Your task to perform on an android device: Open privacy settings Image 0: 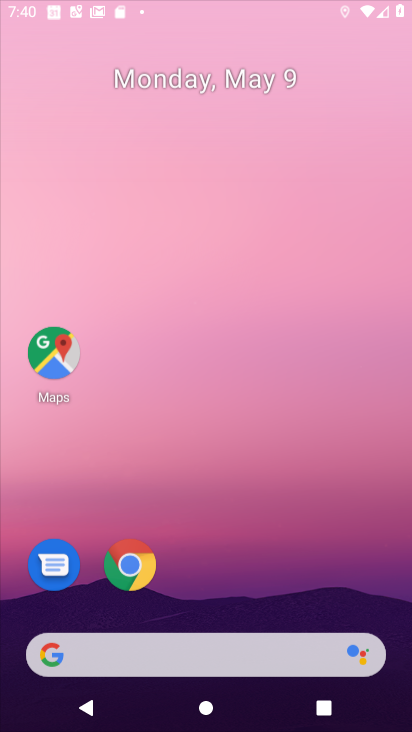
Step 0: click (226, 247)
Your task to perform on an android device: Open privacy settings Image 1: 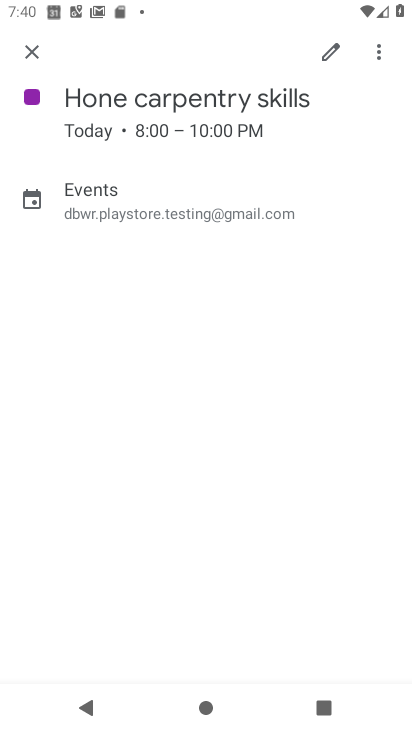
Step 1: press home button
Your task to perform on an android device: Open privacy settings Image 2: 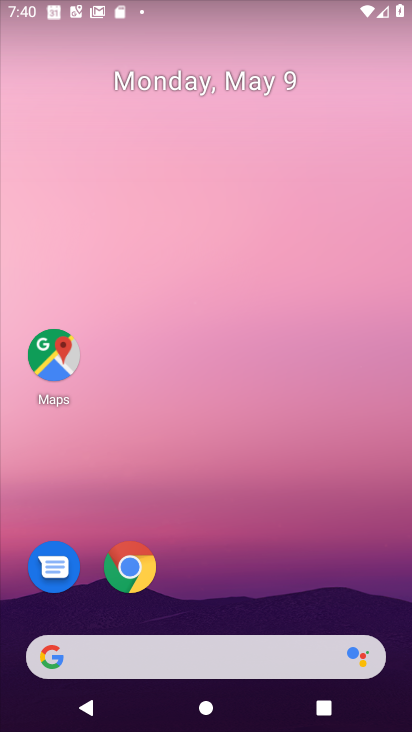
Step 2: drag from (198, 615) to (197, 298)
Your task to perform on an android device: Open privacy settings Image 3: 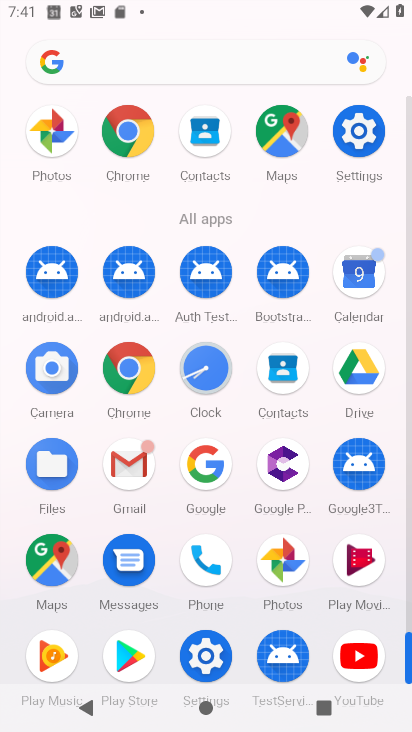
Step 3: click (200, 643)
Your task to perform on an android device: Open privacy settings Image 4: 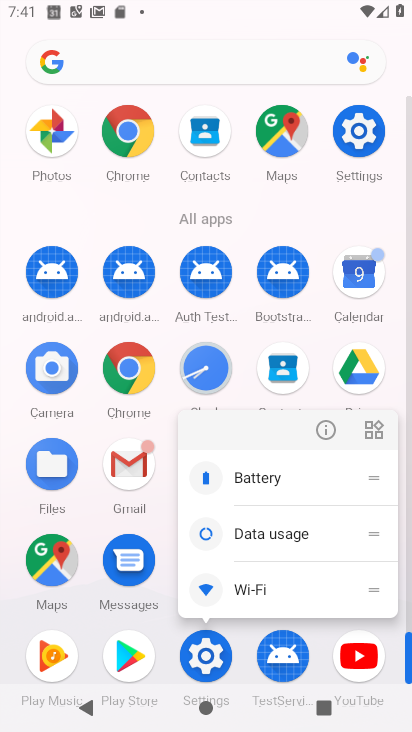
Step 4: click (323, 430)
Your task to perform on an android device: Open privacy settings Image 5: 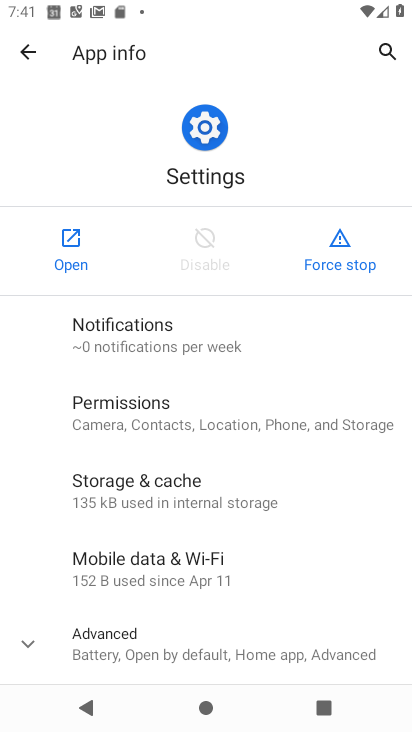
Step 5: click (1, 205)
Your task to perform on an android device: Open privacy settings Image 6: 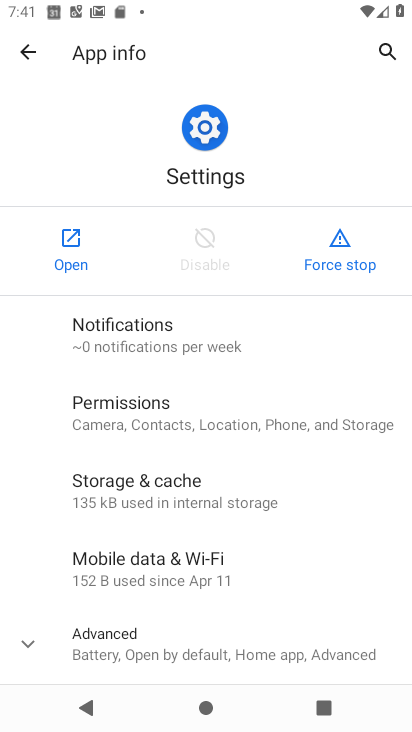
Step 6: click (30, 215)
Your task to perform on an android device: Open privacy settings Image 7: 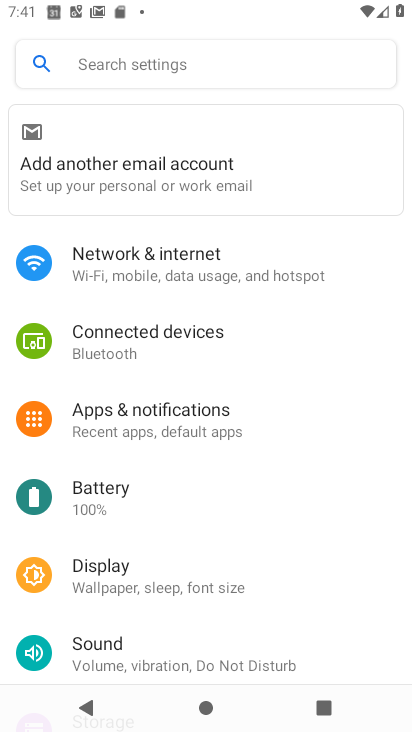
Step 7: drag from (405, 40) to (312, 0)
Your task to perform on an android device: Open privacy settings Image 8: 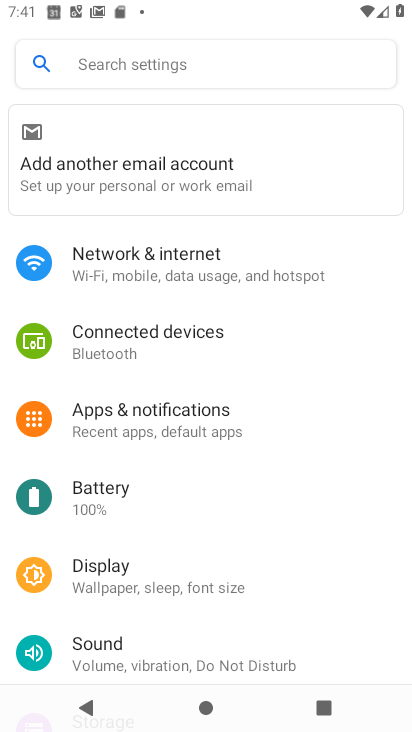
Step 8: drag from (203, 524) to (346, 15)
Your task to perform on an android device: Open privacy settings Image 9: 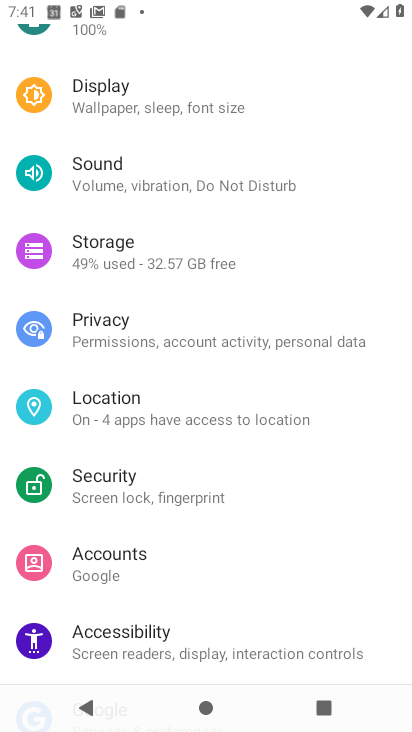
Step 9: drag from (197, 593) to (254, 165)
Your task to perform on an android device: Open privacy settings Image 10: 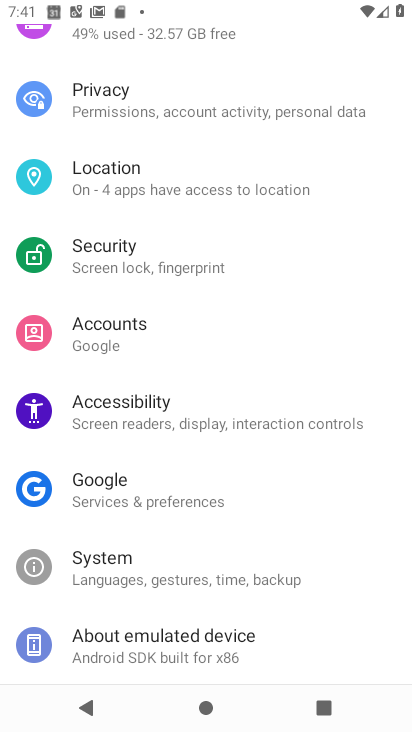
Step 10: click (146, 99)
Your task to perform on an android device: Open privacy settings Image 11: 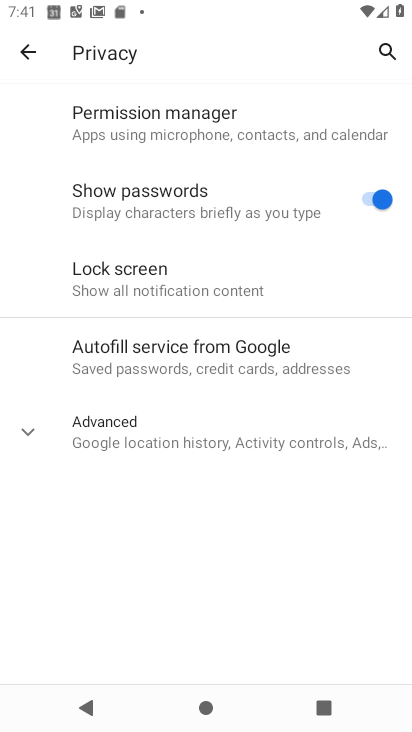
Step 11: task complete